Your task to perform on an android device: check data usage Image 0: 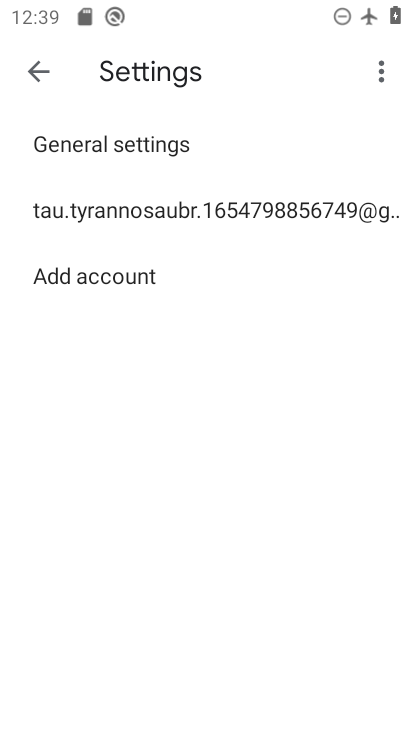
Step 0: press home button
Your task to perform on an android device: check data usage Image 1: 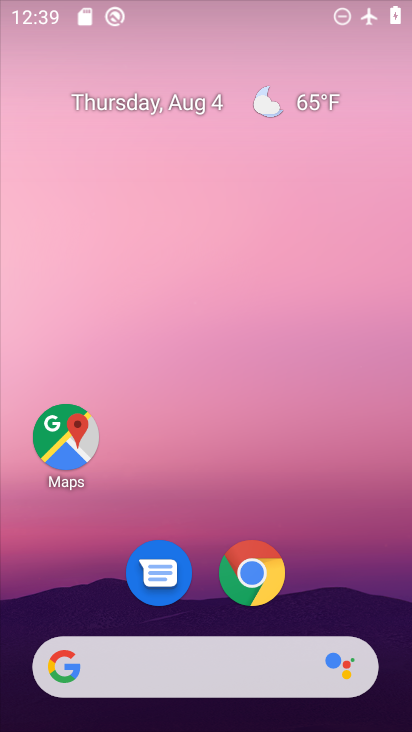
Step 1: drag from (331, 487) to (347, 161)
Your task to perform on an android device: check data usage Image 2: 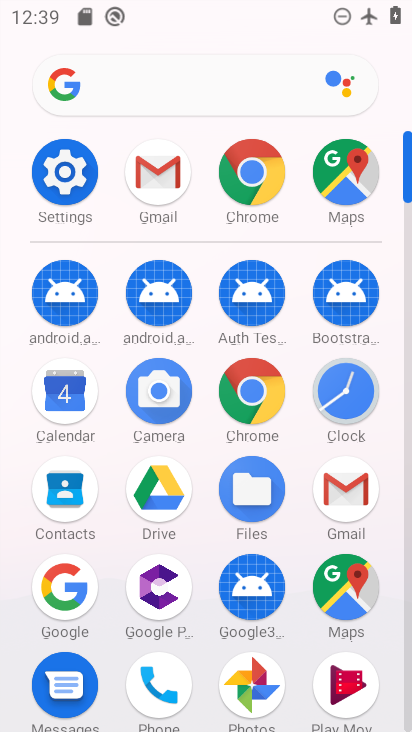
Step 2: click (76, 155)
Your task to perform on an android device: check data usage Image 3: 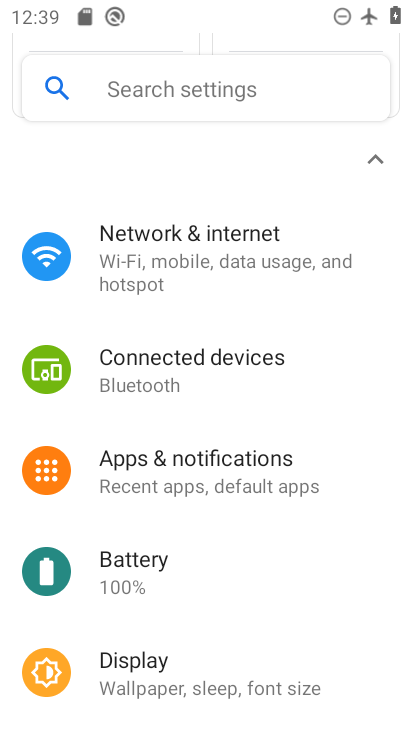
Step 3: click (125, 265)
Your task to perform on an android device: check data usage Image 4: 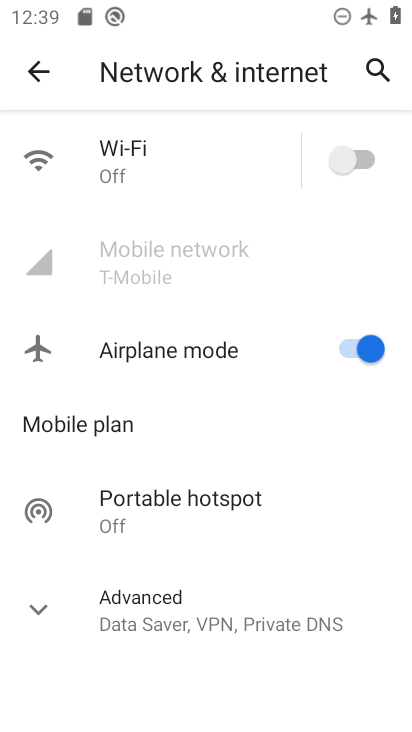
Step 4: click (165, 148)
Your task to perform on an android device: check data usage Image 5: 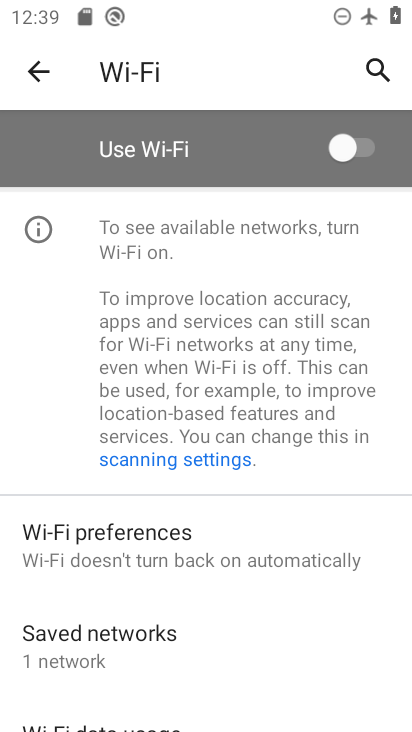
Step 5: drag from (224, 608) to (249, 187)
Your task to perform on an android device: check data usage Image 6: 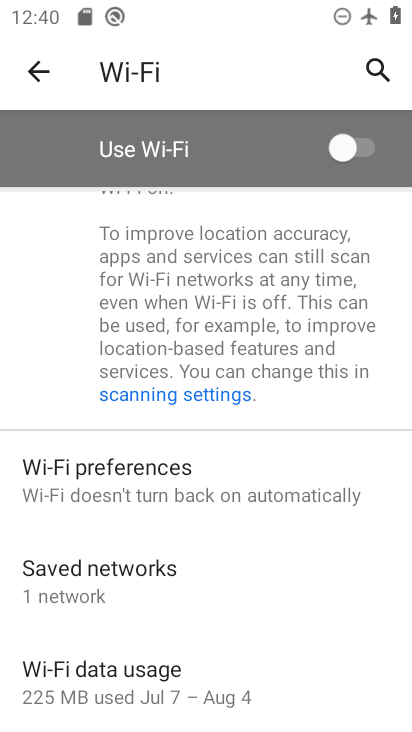
Step 6: click (150, 706)
Your task to perform on an android device: check data usage Image 7: 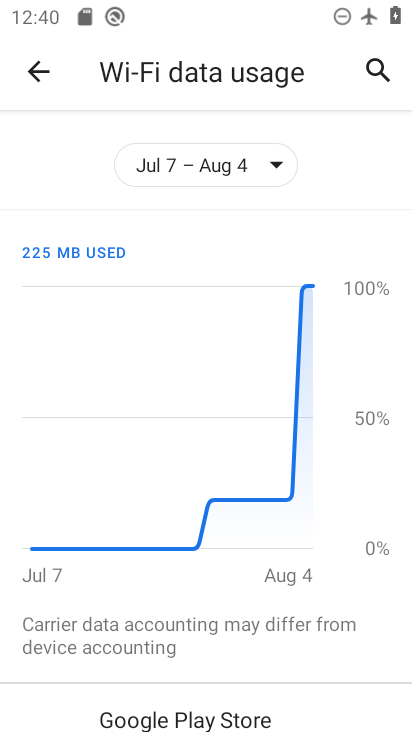
Step 7: task complete